Your task to perform on an android device: Open Google Maps and go to "Timeline" Image 0: 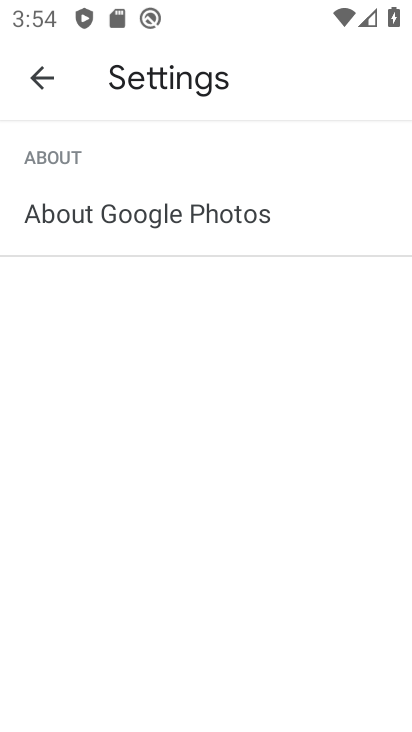
Step 0: press home button
Your task to perform on an android device: Open Google Maps and go to "Timeline" Image 1: 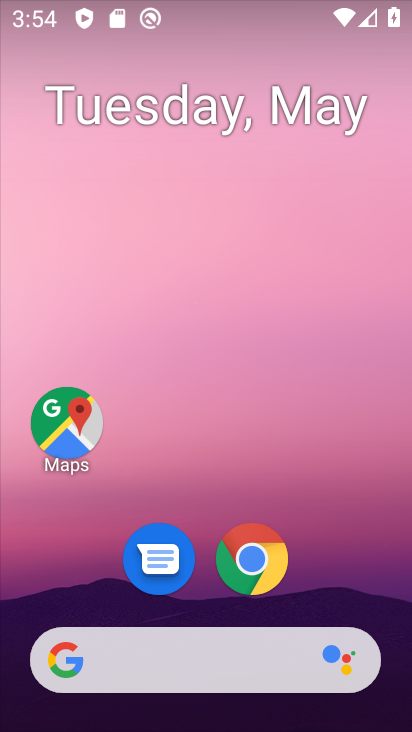
Step 1: click (86, 409)
Your task to perform on an android device: Open Google Maps and go to "Timeline" Image 2: 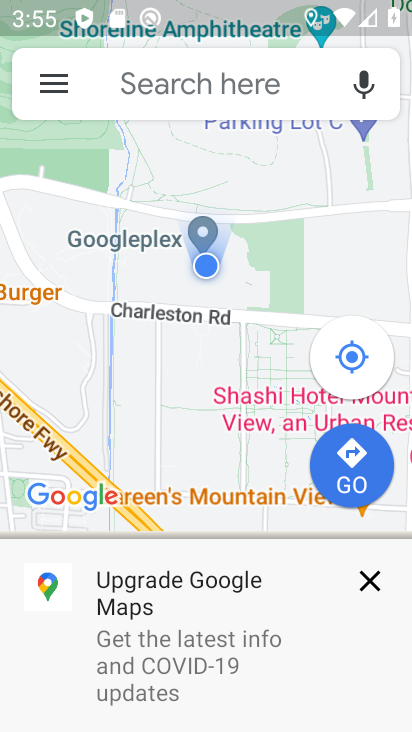
Step 2: click (370, 586)
Your task to perform on an android device: Open Google Maps and go to "Timeline" Image 3: 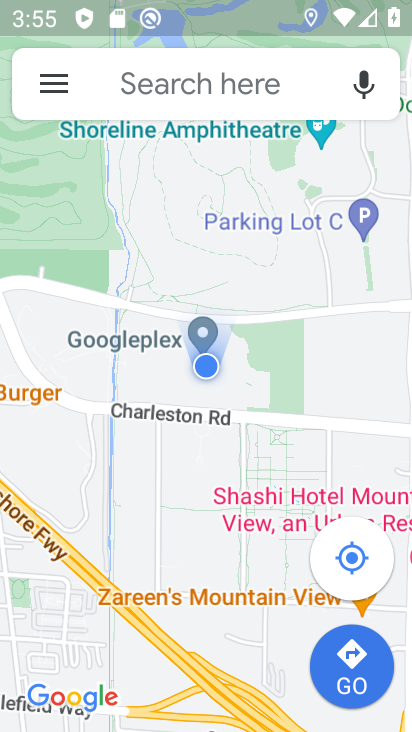
Step 3: click (52, 77)
Your task to perform on an android device: Open Google Maps and go to "Timeline" Image 4: 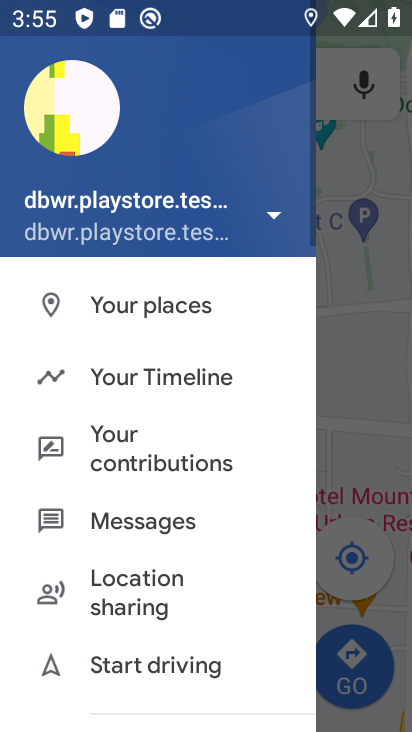
Step 4: click (154, 367)
Your task to perform on an android device: Open Google Maps and go to "Timeline" Image 5: 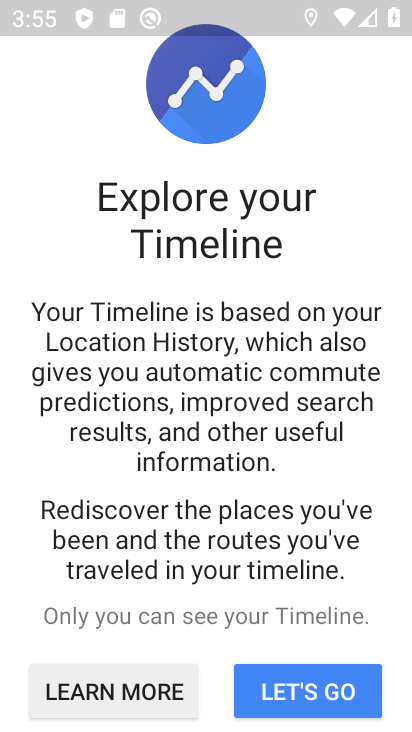
Step 5: click (301, 686)
Your task to perform on an android device: Open Google Maps and go to "Timeline" Image 6: 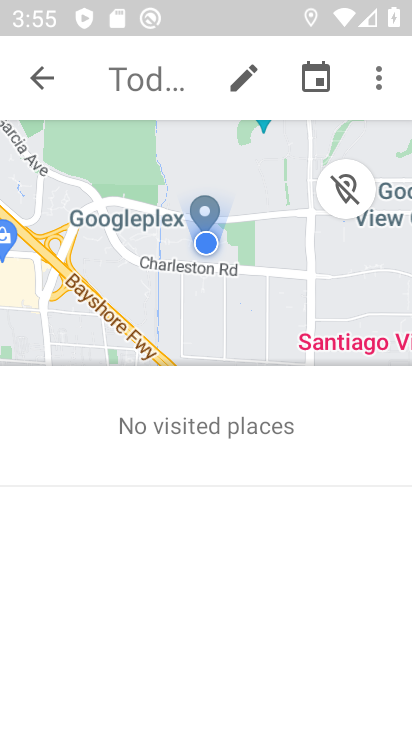
Step 6: task complete